Your task to perform on an android device: Search for vegetarian restaurants on Maps Image 0: 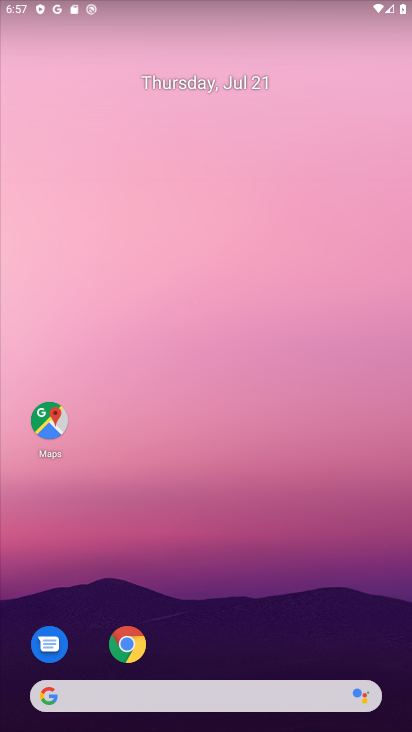
Step 0: click (42, 410)
Your task to perform on an android device: Search for vegetarian restaurants on Maps Image 1: 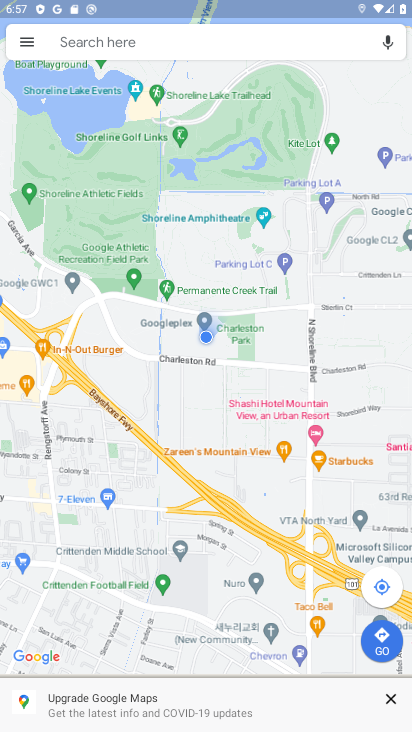
Step 1: click (164, 47)
Your task to perform on an android device: Search for vegetarian restaurants on Maps Image 2: 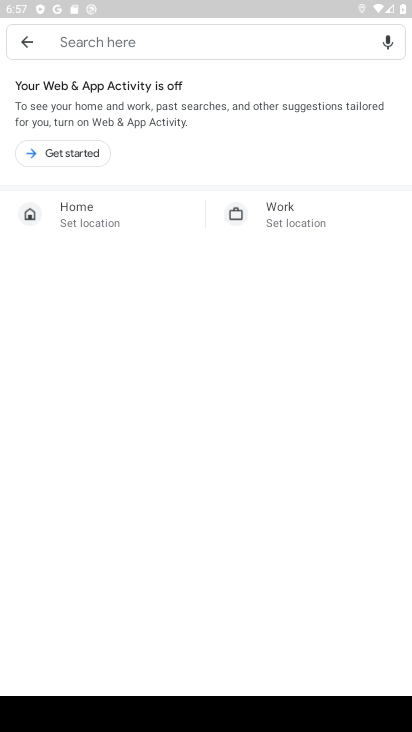
Step 2: type " vegetarian restaurants"
Your task to perform on an android device: Search for vegetarian restaurants on Maps Image 3: 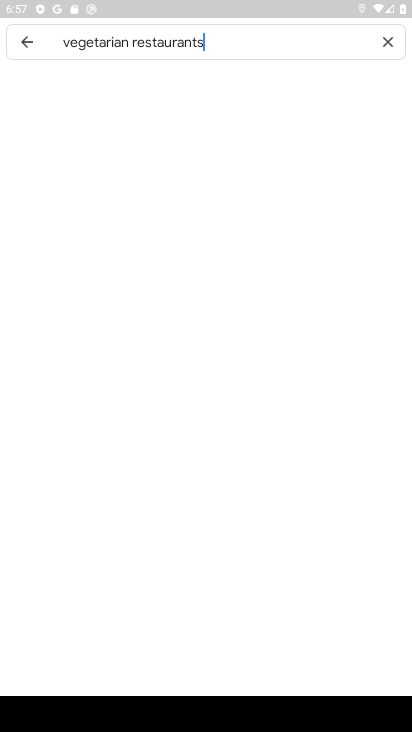
Step 3: press enter
Your task to perform on an android device: Search for vegetarian restaurants on Maps Image 4: 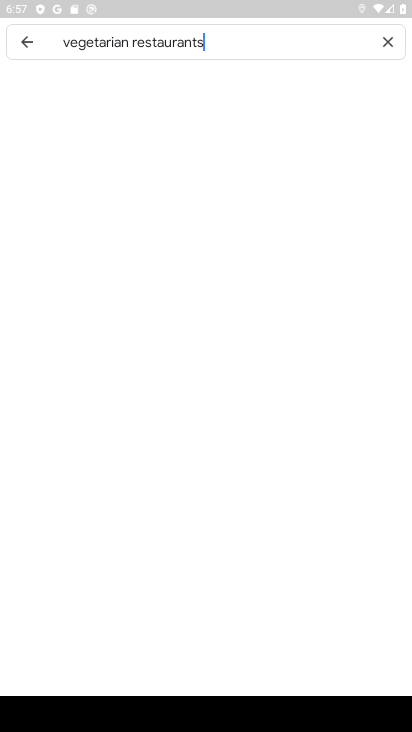
Step 4: type ""
Your task to perform on an android device: Search for vegetarian restaurants on Maps Image 5: 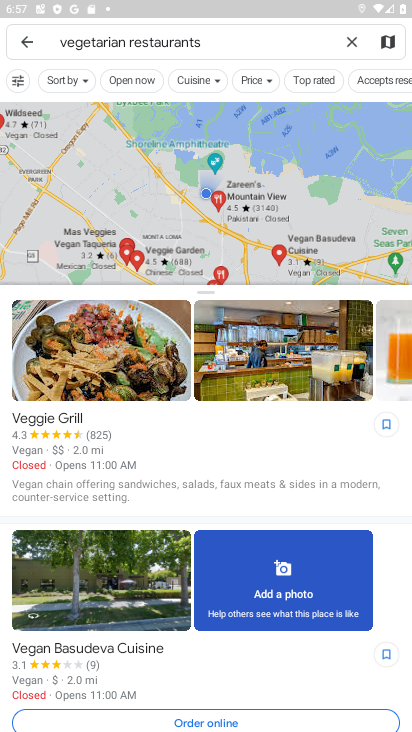
Step 5: task complete